Your task to perform on an android device: Open calendar and show me the second week of next month Image 0: 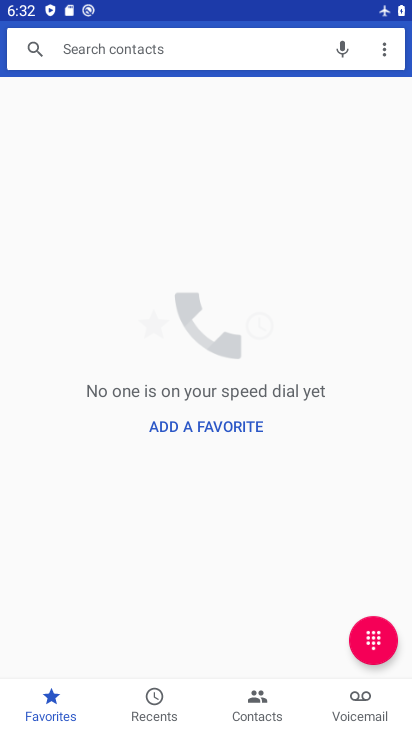
Step 0: press home button
Your task to perform on an android device: Open calendar and show me the second week of next month Image 1: 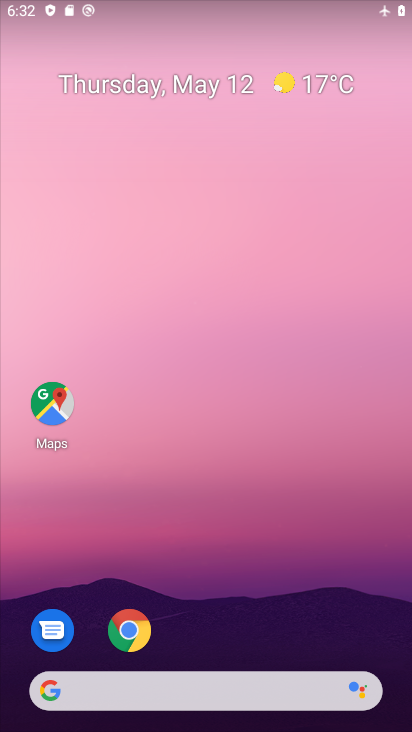
Step 1: drag from (268, 656) to (217, 254)
Your task to perform on an android device: Open calendar and show me the second week of next month Image 2: 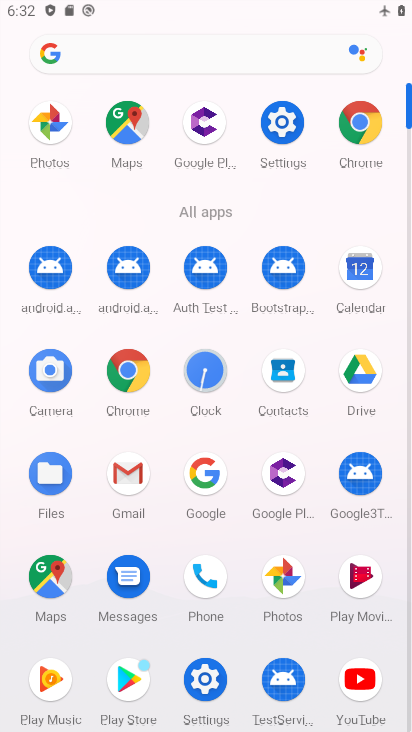
Step 2: click (365, 272)
Your task to perform on an android device: Open calendar and show me the second week of next month Image 3: 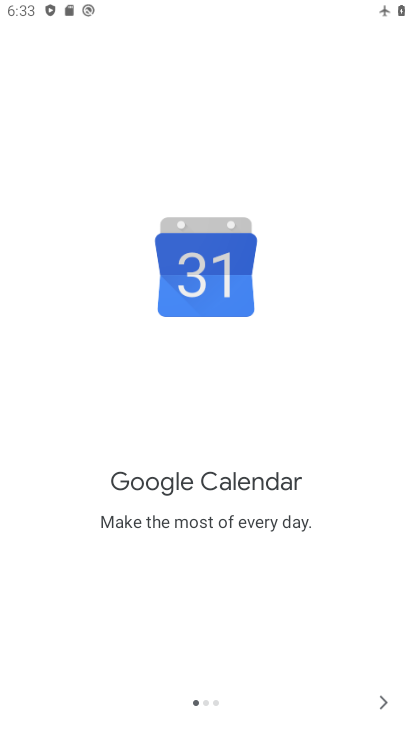
Step 3: click (386, 702)
Your task to perform on an android device: Open calendar and show me the second week of next month Image 4: 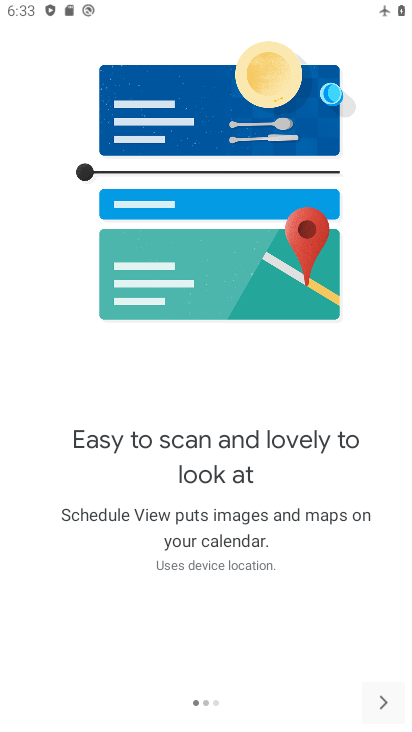
Step 4: click (386, 702)
Your task to perform on an android device: Open calendar and show me the second week of next month Image 5: 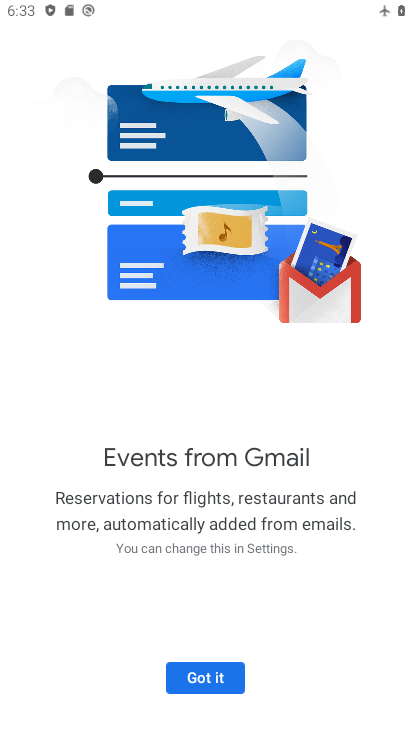
Step 5: click (387, 702)
Your task to perform on an android device: Open calendar and show me the second week of next month Image 6: 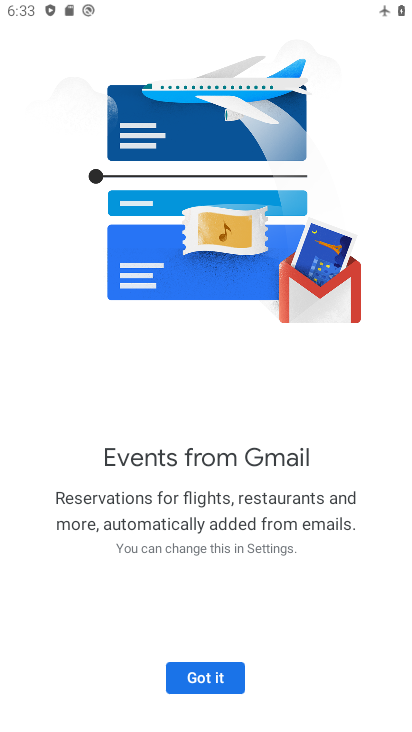
Step 6: click (193, 665)
Your task to perform on an android device: Open calendar and show me the second week of next month Image 7: 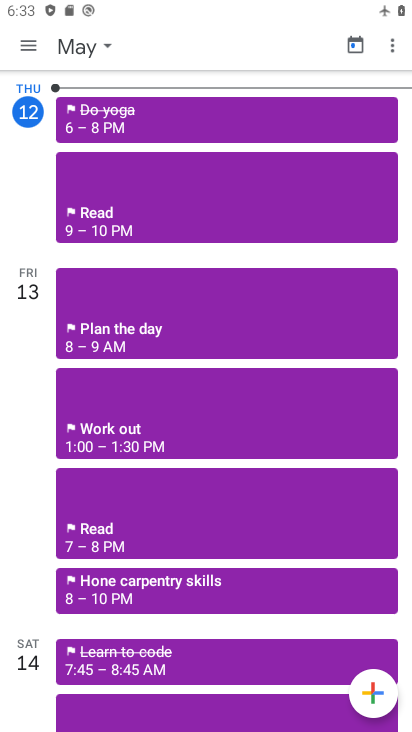
Step 7: click (88, 50)
Your task to perform on an android device: Open calendar and show me the second week of next month Image 8: 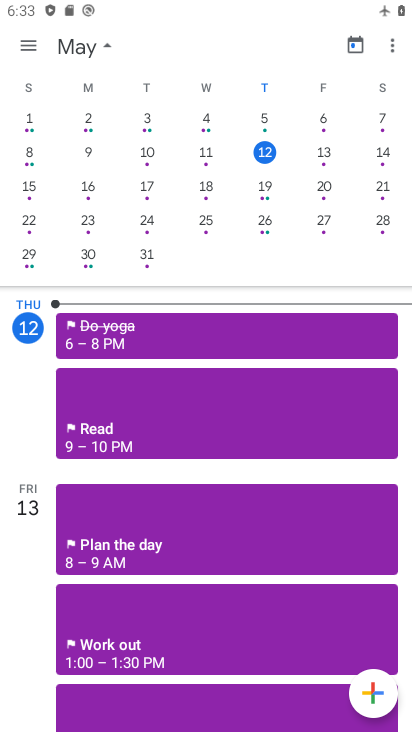
Step 8: drag from (247, 155) to (24, 180)
Your task to perform on an android device: Open calendar and show me the second week of next month Image 9: 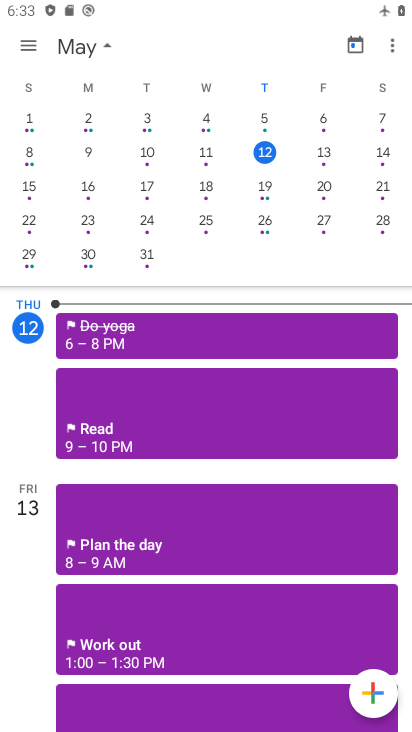
Step 9: drag from (293, 171) to (17, 169)
Your task to perform on an android device: Open calendar and show me the second week of next month Image 10: 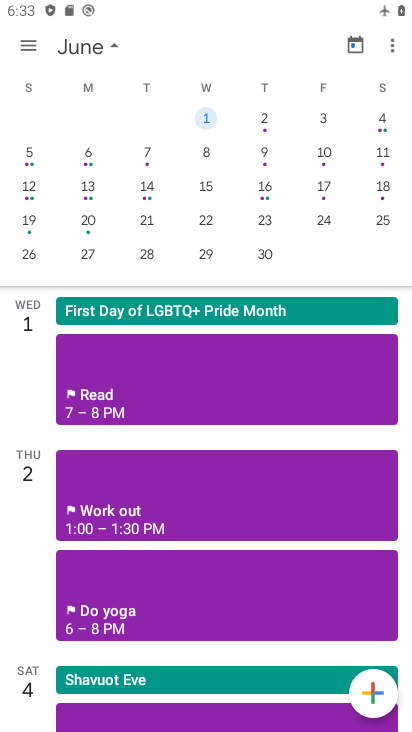
Step 10: click (30, 182)
Your task to perform on an android device: Open calendar and show me the second week of next month Image 11: 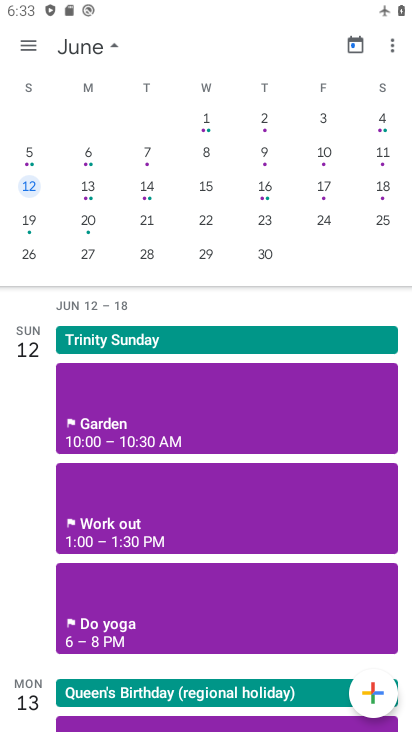
Step 11: task complete